Your task to perform on an android device: check out phone information Image 0: 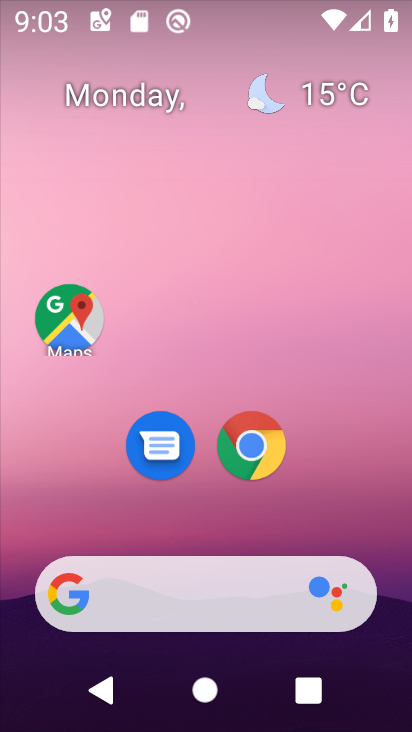
Step 0: drag from (220, 518) to (276, 123)
Your task to perform on an android device: check out phone information Image 1: 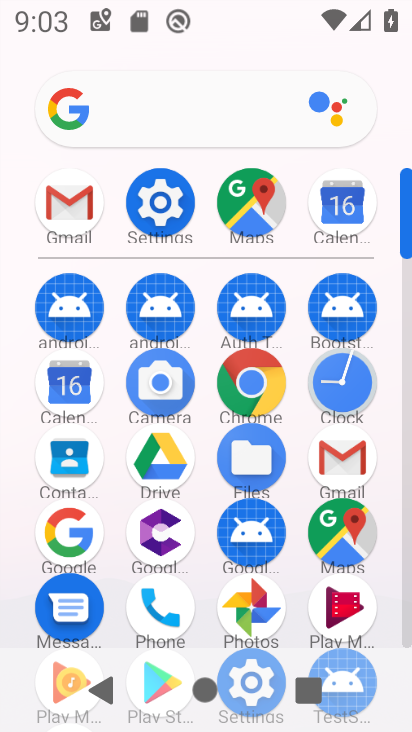
Step 1: click (161, 198)
Your task to perform on an android device: check out phone information Image 2: 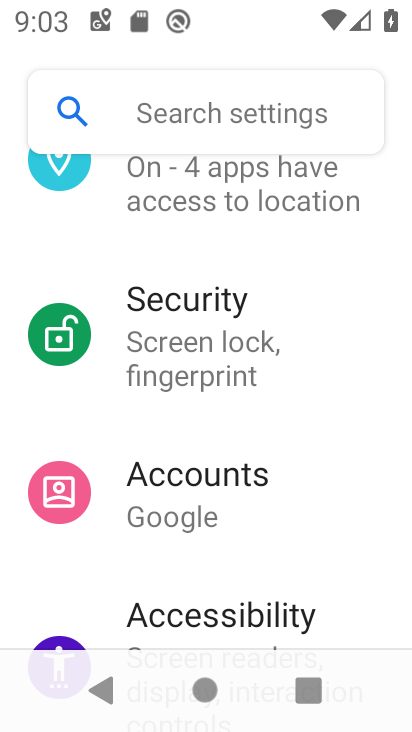
Step 2: drag from (217, 550) to (238, 130)
Your task to perform on an android device: check out phone information Image 3: 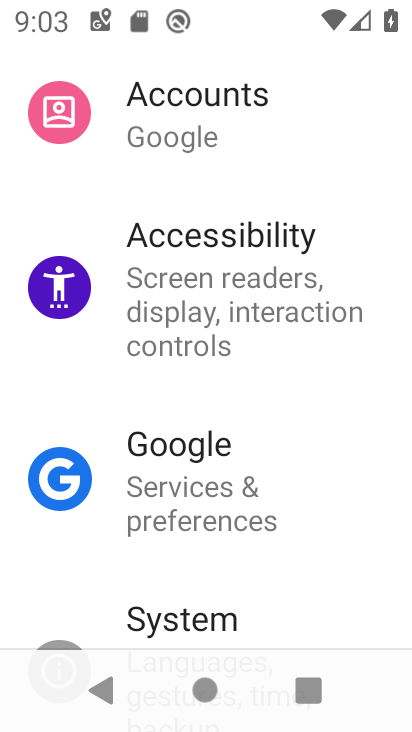
Step 3: drag from (230, 578) to (275, 183)
Your task to perform on an android device: check out phone information Image 4: 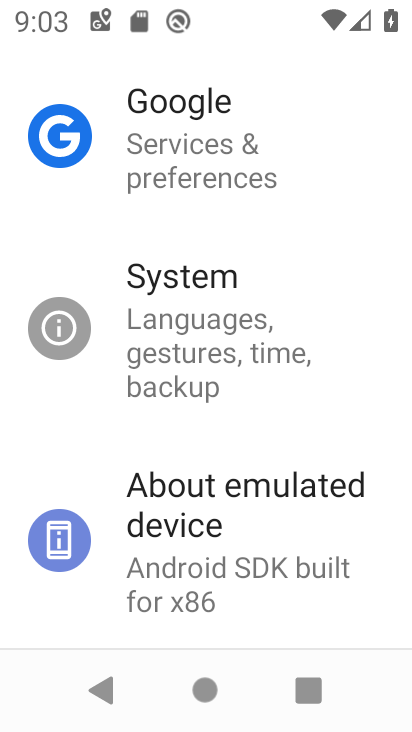
Step 4: click (230, 551)
Your task to perform on an android device: check out phone information Image 5: 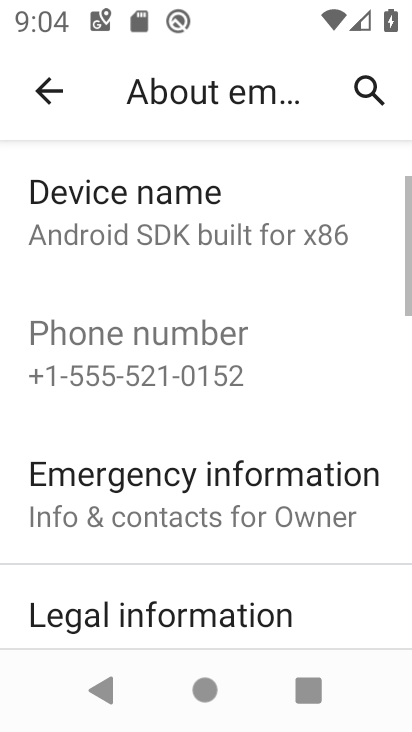
Step 5: task complete